Your task to perform on an android device: add a contact in the contacts app Image 0: 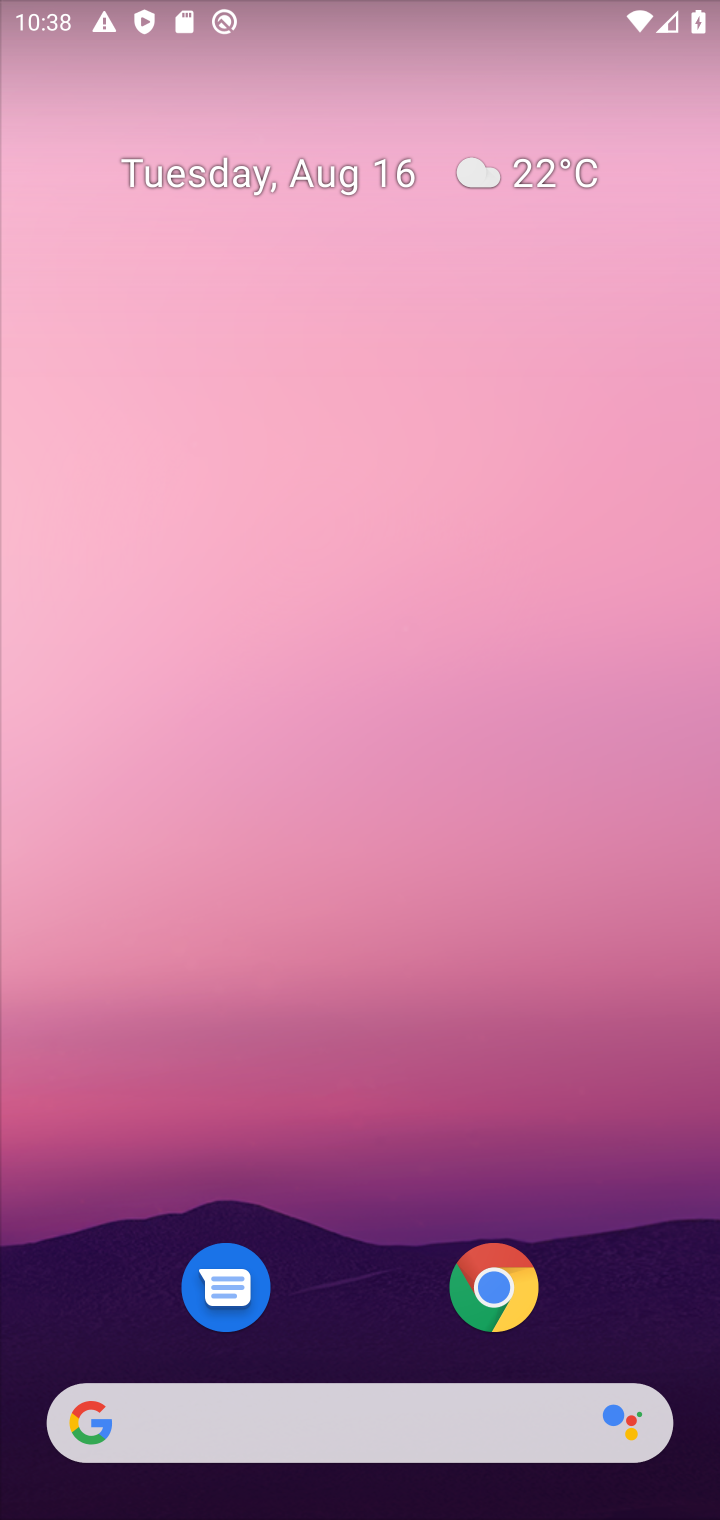
Step 0: drag from (686, 1327) to (588, 256)
Your task to perform on an android device: add a contact in the contacts app Image 1: 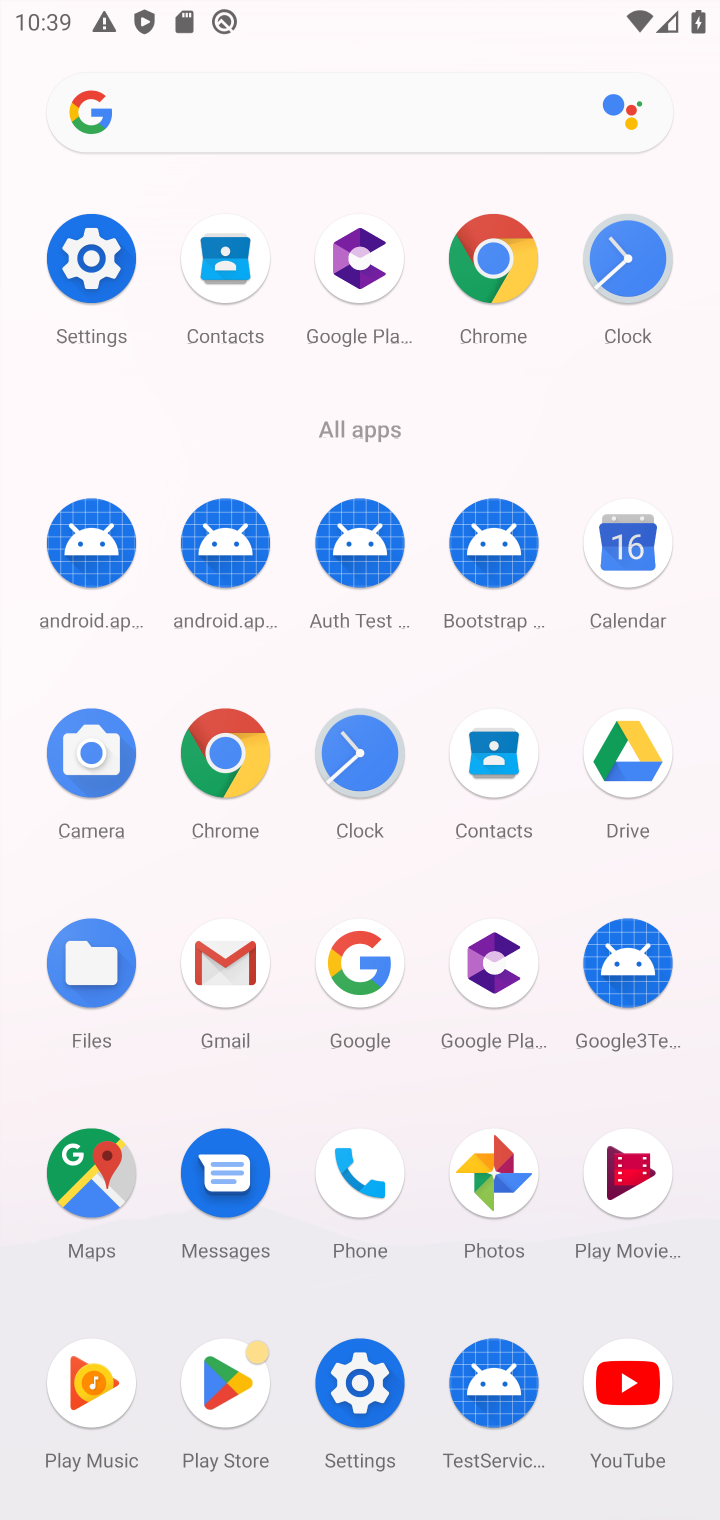
Step 1: click (489, 757)
Your task to perform on an android device: add a contact in the contacts app Image 2: 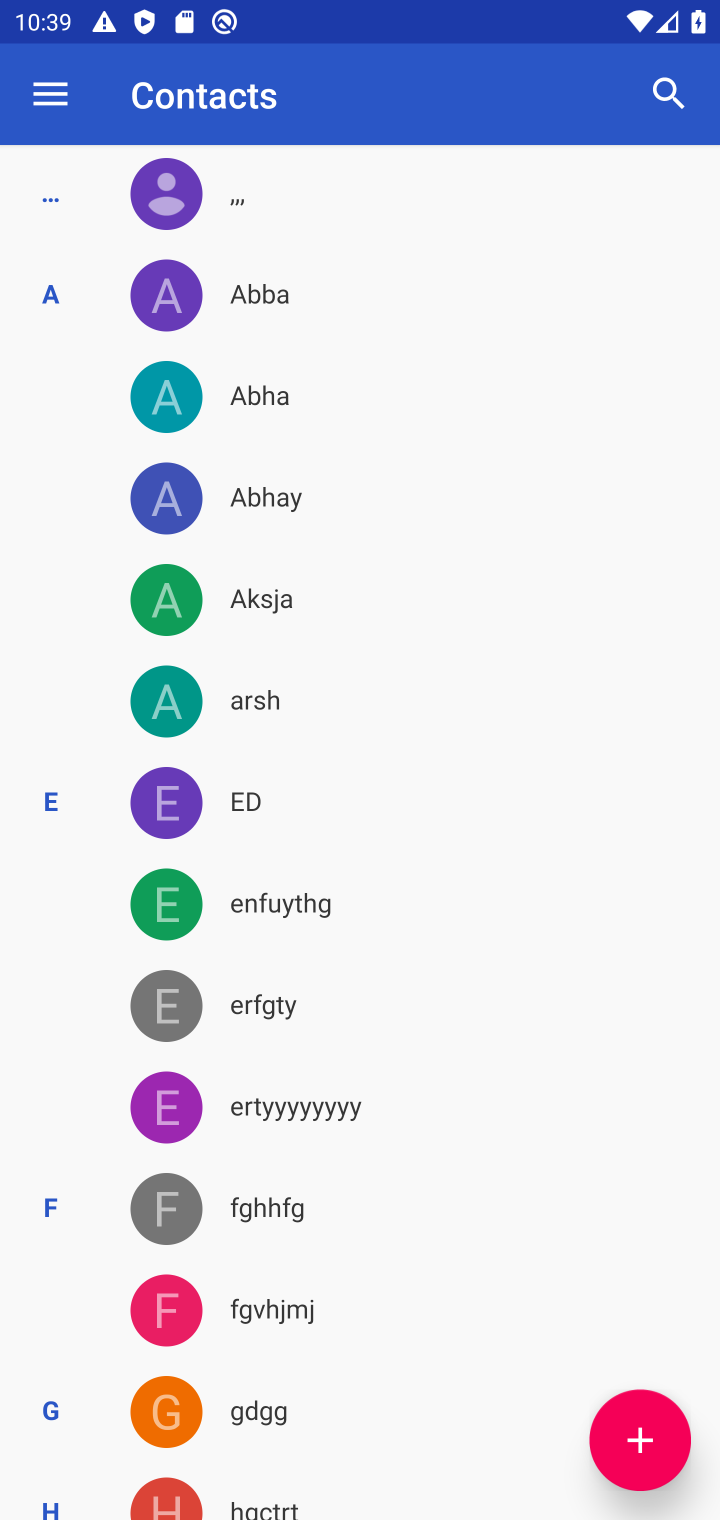
Step 2: click (639, 1448)
Your task to perform on an android device: add a contact in the contacts app Image 3: 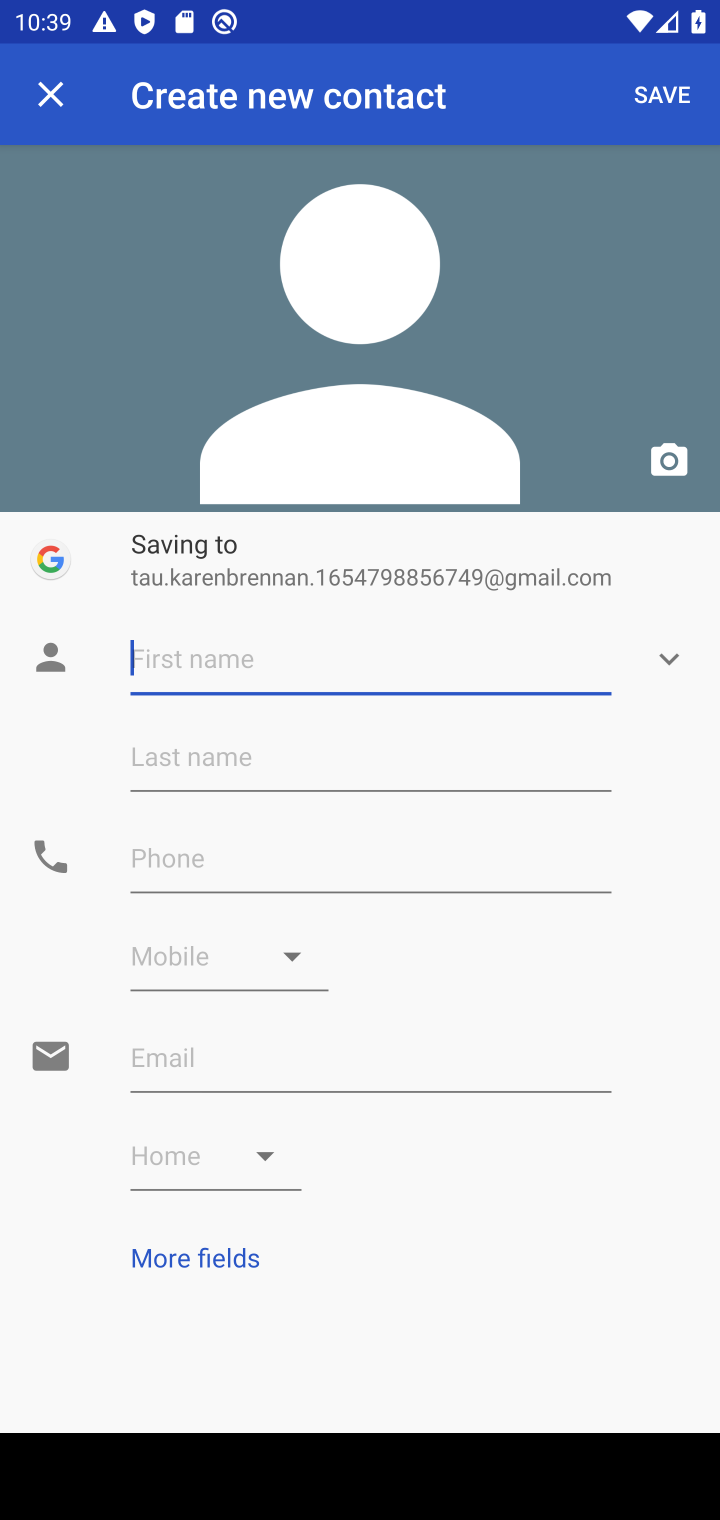
Step 3: type "mnbxzadrt"
Your task to perform on an android device: add a contact in the contacts app Image 4: 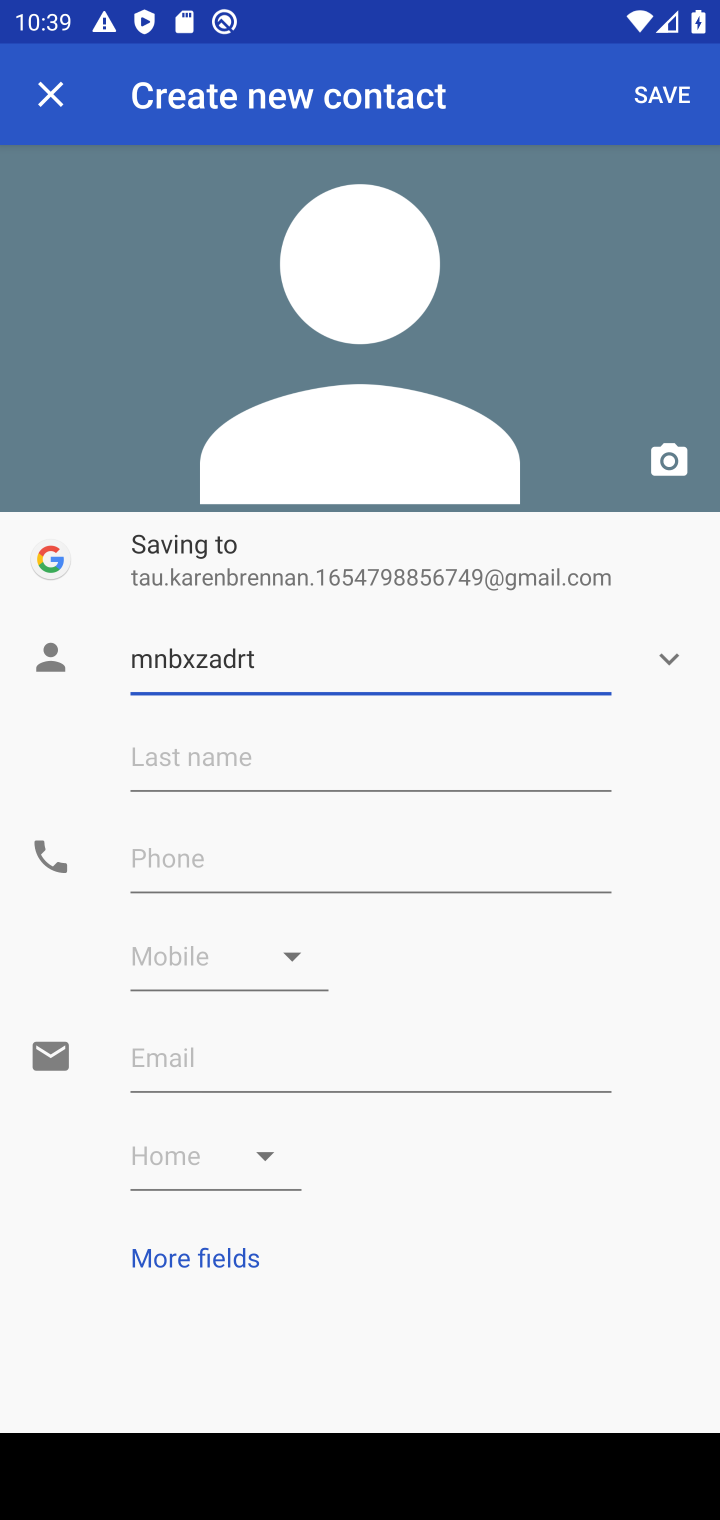
Step 4: click (280, 853)
Your task to perform on an android device: add a contact in the contacts app Image 5: 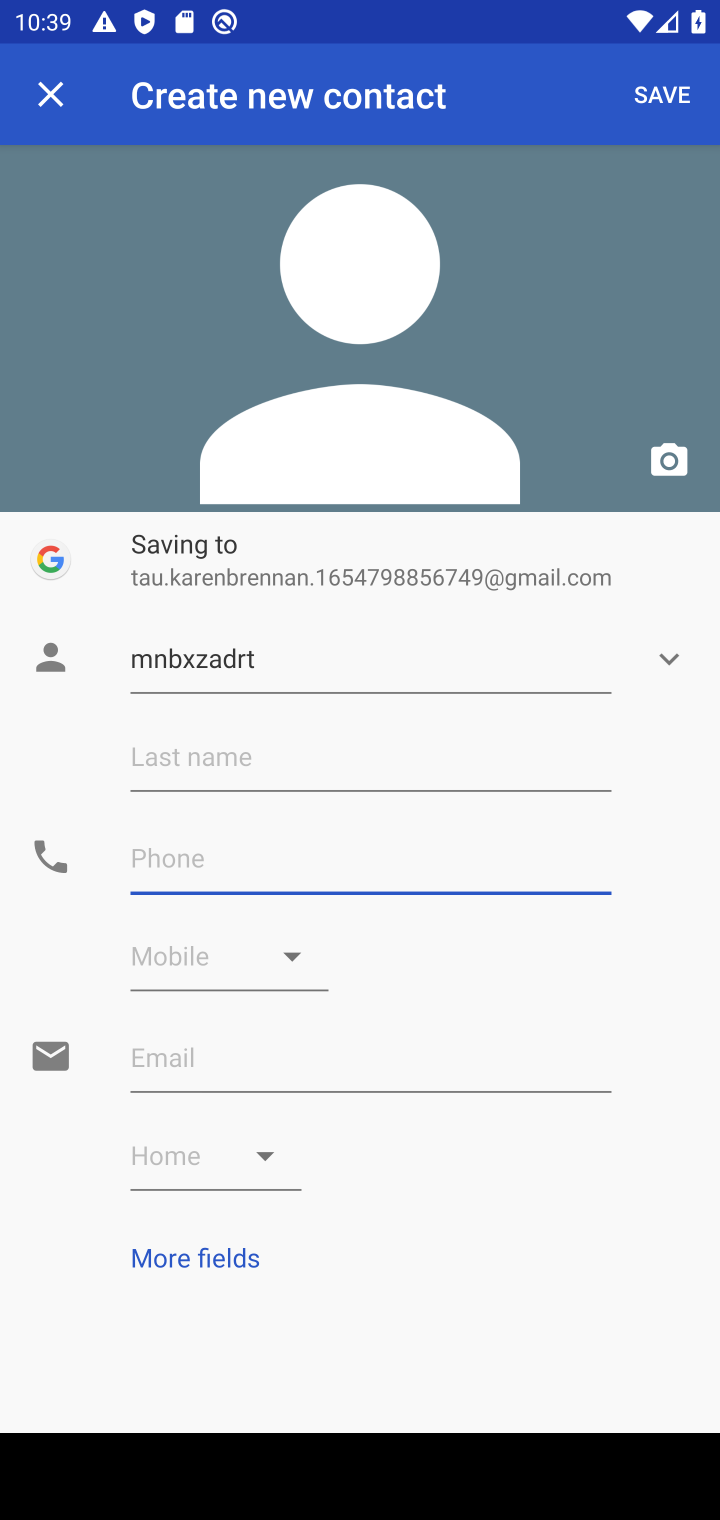
Step 5: type "09876445575"
Your task to perform on an android device: add a contact in the contacts app Image 6: 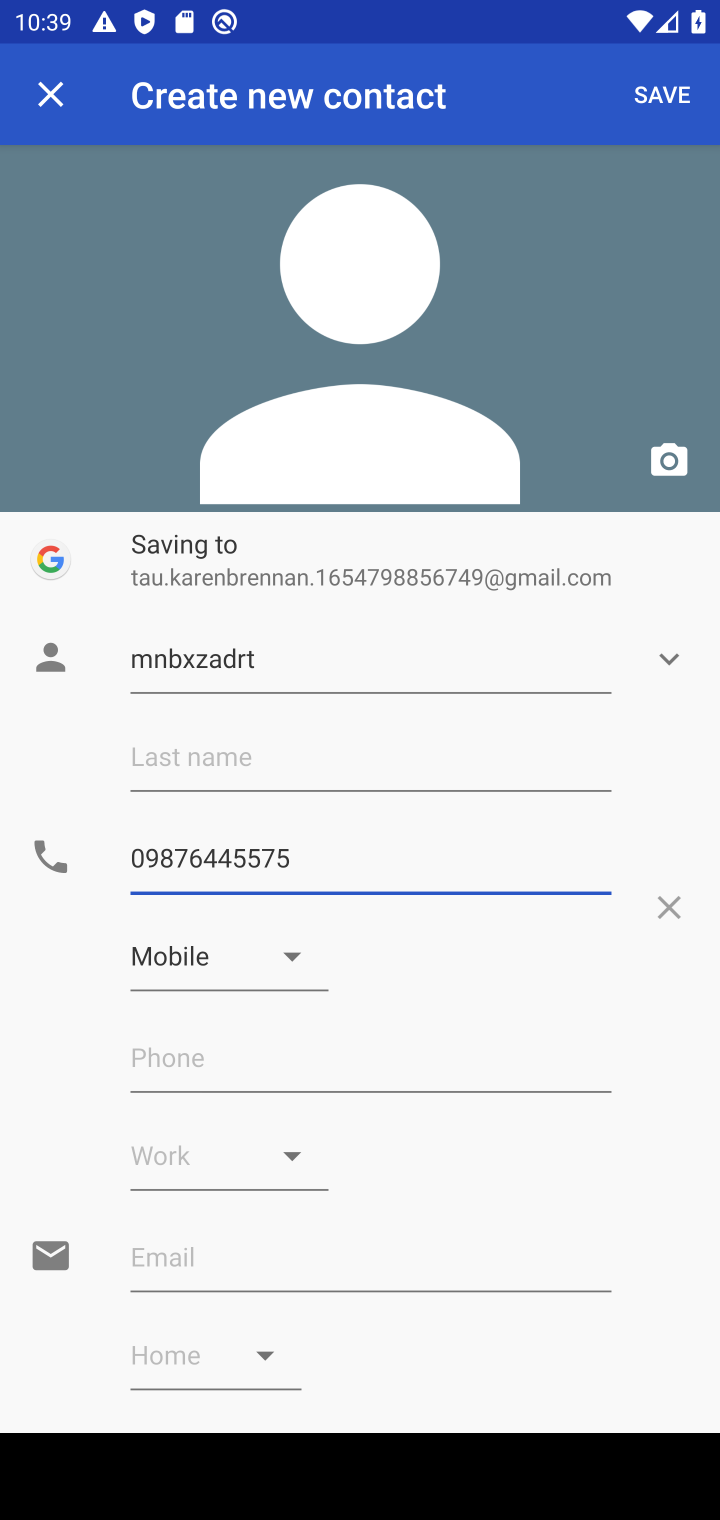
Step 6: click (657, 89)
Your task to perform on an android device: add a contact in the contacts app Image 7: 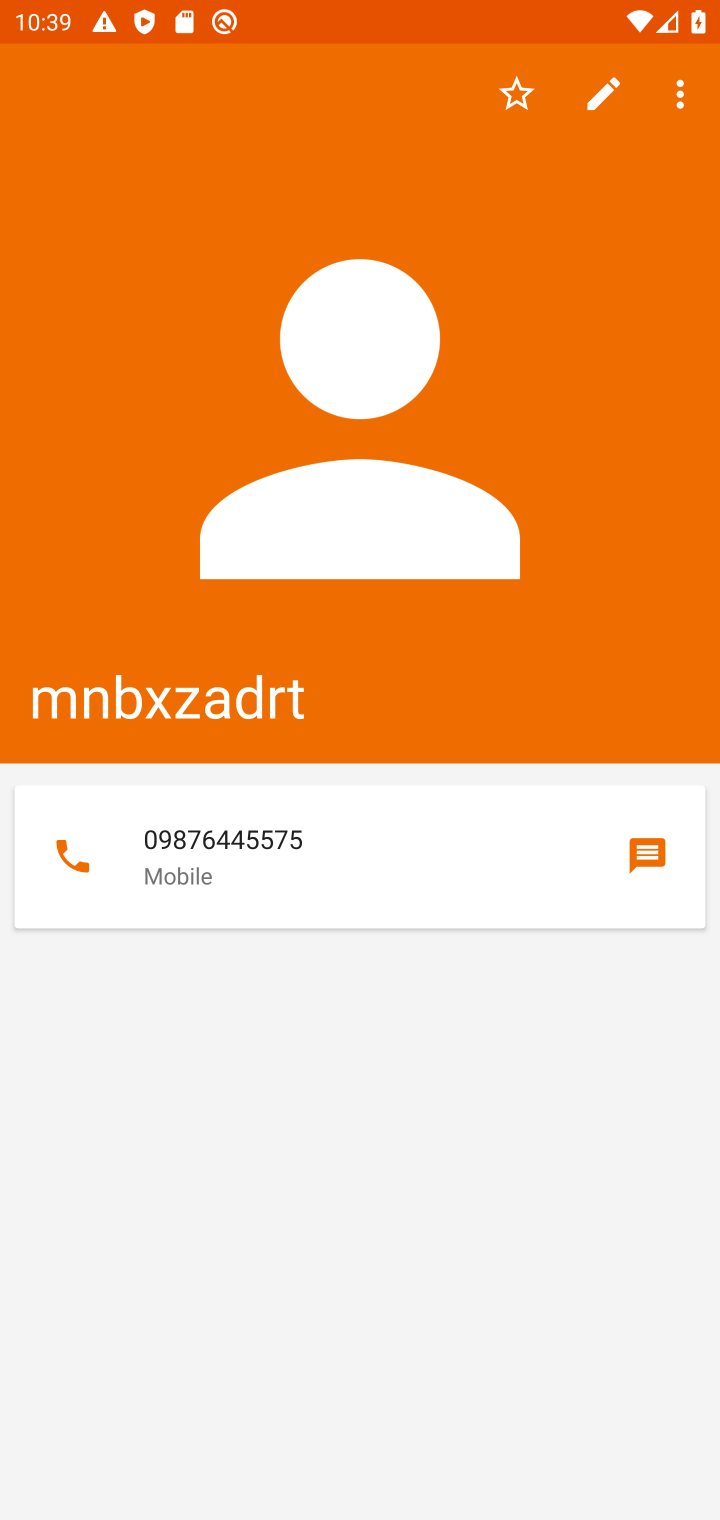
Step 7: task complete